Your task to perform on an android device: turn vacation reply on in the gmail app Image 0: 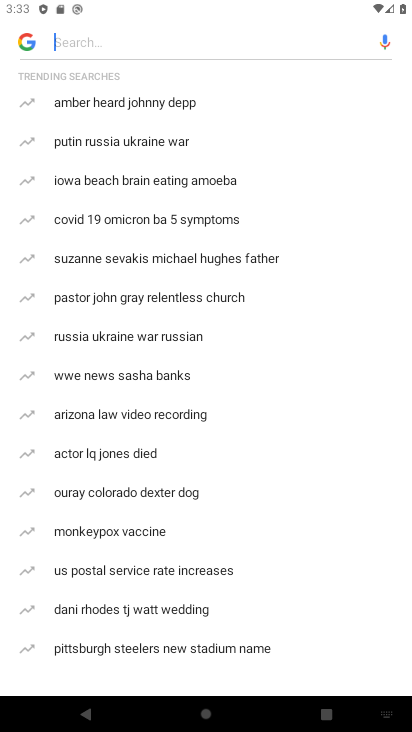
Step 0: press home button
Your task to perform on an android device: turn vacation reply on in the gmail app Image 1: 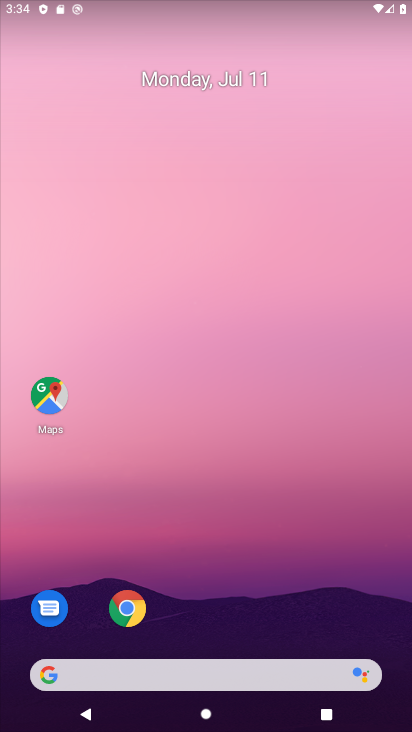
Step 1: drag from (252, 521) to (222, 0)
Your task to perform on an android device: turn vacation reply on in the gmail app Image 2: 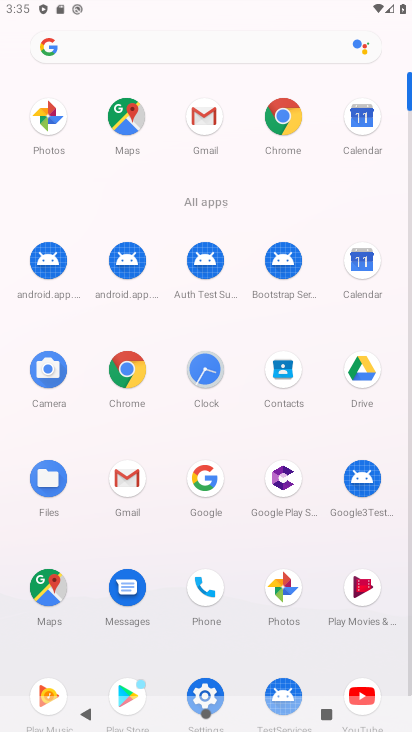
Step 2: click (134, 478)
Your task to perform on an android device: turn vacation reply on in the gmail app Image 3: 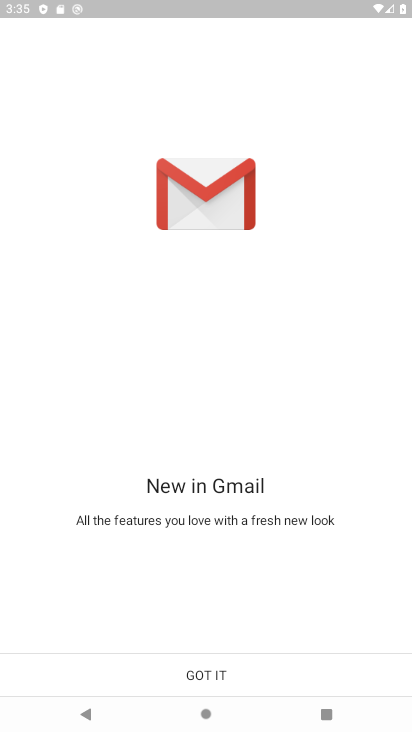
Step 3: click (250, 672)
Your task to perform on an android device: turn vacation reply on in the gmail app Image 4: 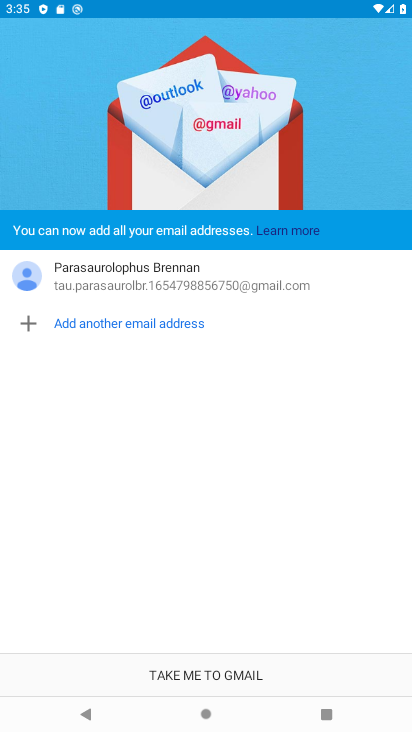
Step 4: click (250, 672)
Your task to perform on an android device: turn vacation reply on in the gmail app Image 5: 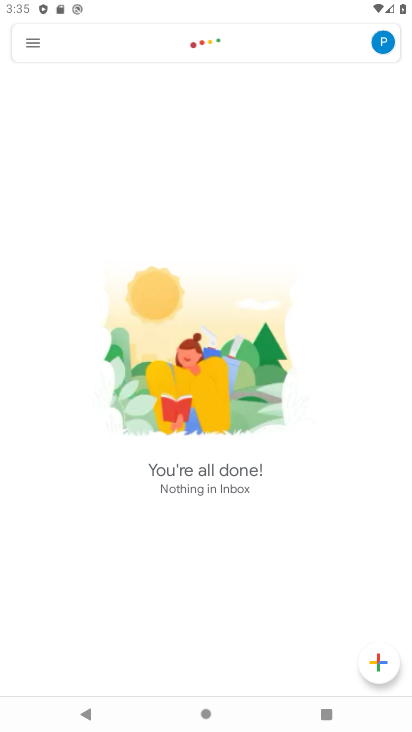
Step 5: click (37, 40)
Your task to perform on an android device: turn vacation reply on in the gmail app Image 6: 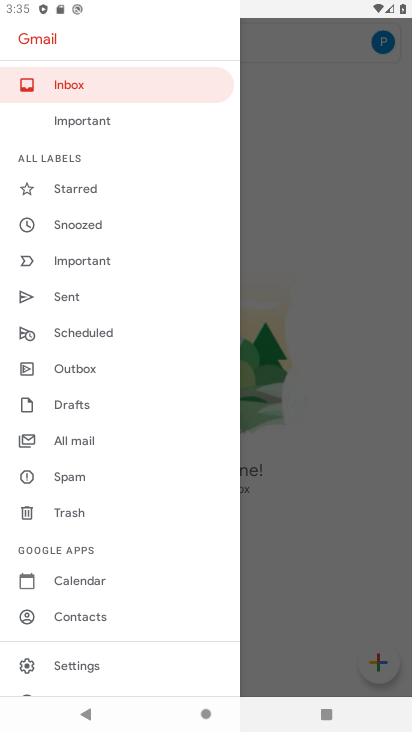
Step 6: drag from (181, 629) to (256, 137)
Your task to perform on an android device: turn vacation reply on in the gmail app Image 7: 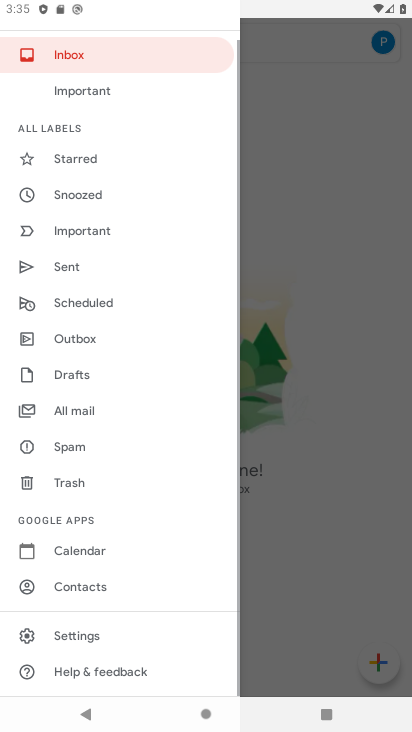
Step 7: click (101, 634)
Your task to perform on an android device: turn vacation reply on in the gmail app Image 8: 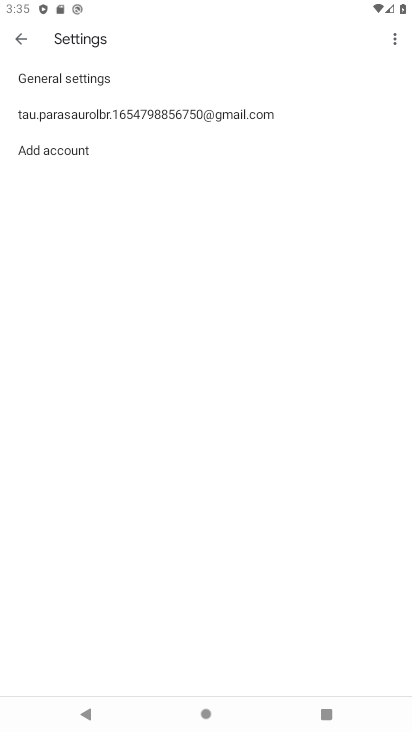
Step 8: click (117, 117)
Your task to perform on an android device: turn vacation reply on in the gmail app Image 9: 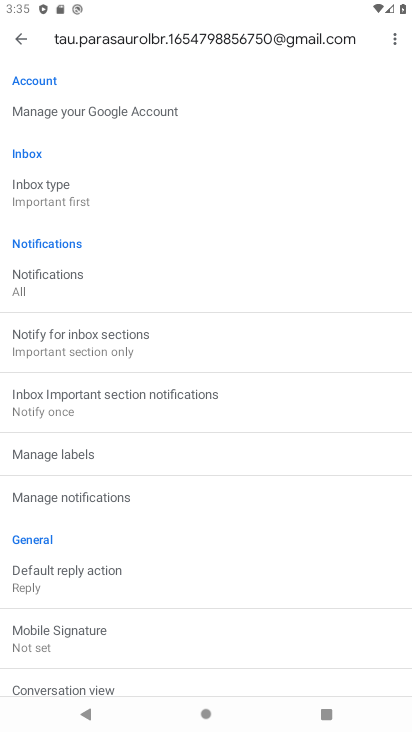
Step 9: drag from (273, 585) to (371, 10)
Your task to perform on an android device: turn vacation reply on in the gmail app Image 10: 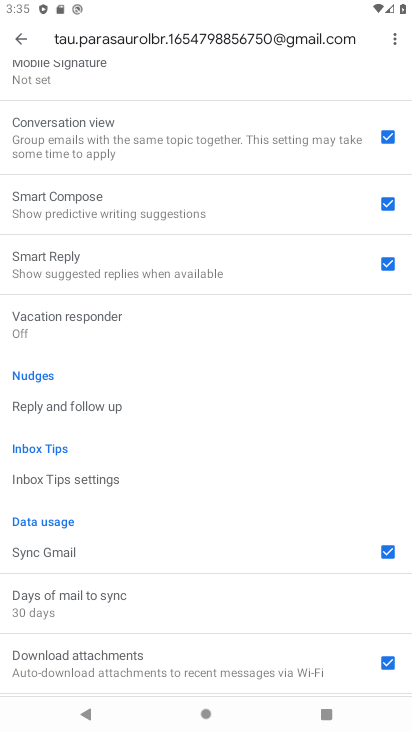
Step 10: drag from (270, 598) to (313, 22)
Your task to perform on an android device: turn vacation reply on in the gmail app Image 11: 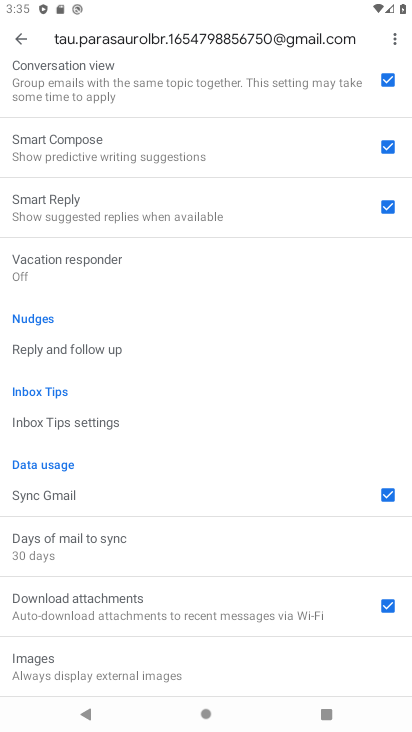
Step 11: click (78, 264)
Your task to perform on an android device: turn vacation reply on in the gmail app Image 12: 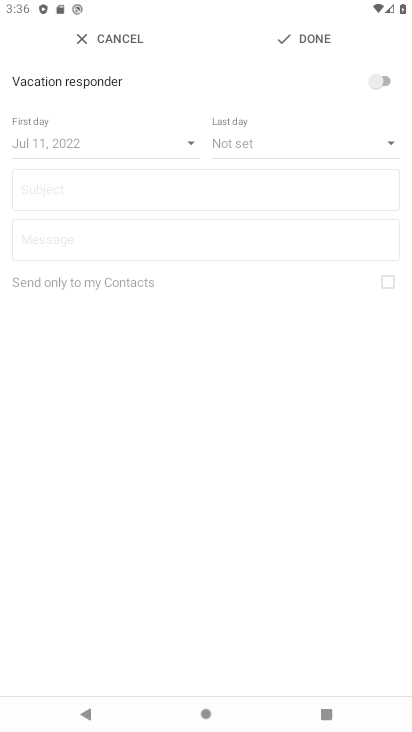
Step 12: click (377, 80)
Your task to perform on an android device: turn vacation reply on in the gmail app Image 13: 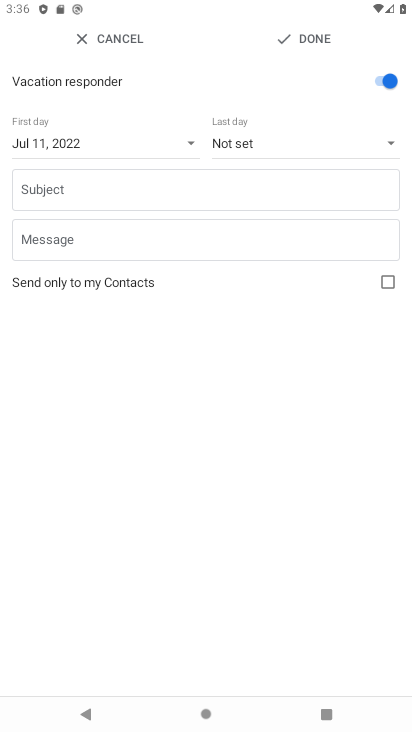
Step 13: click (310, 30)
Your task to perform on an android device: turn vacation reply on in the gmail app Image 14: 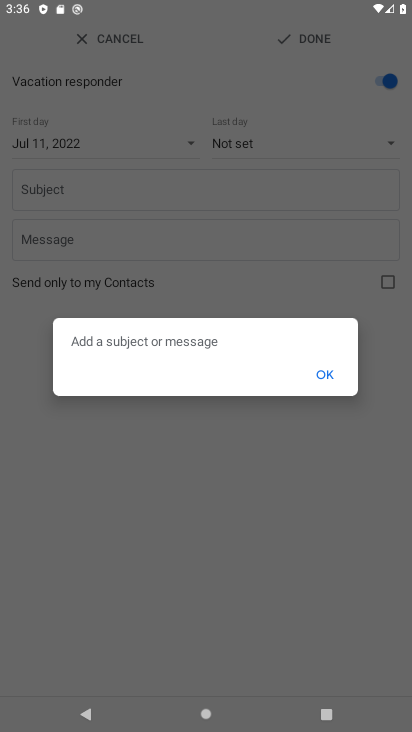
Step 14: click (331, 369)
Your task to perform on an android device: turn vacation reply on in the gmail app Image 15: 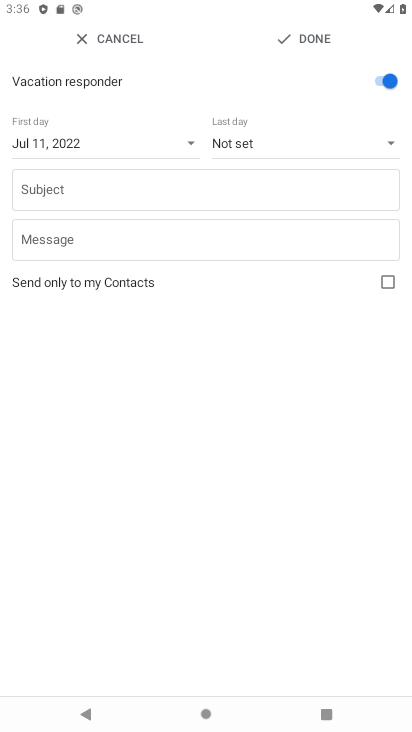
Step 15: click (197, 191)
Your task to perform on an android device: turn vacation reply on in the gmail app Image 16: 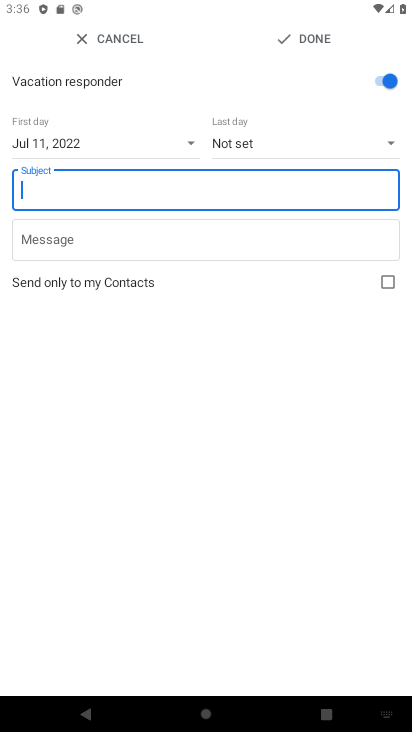
Step 16: type "hjk"
Your task to perform on an android device: turn vacation reply on in the gmail app Image 17: 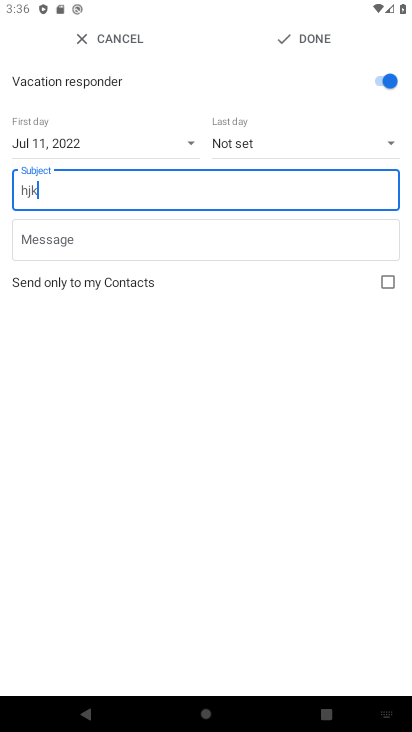
Step 17: click (309, 35)
Your task to perform on an android device: turn vacation reply on in the gmail app Image 18: 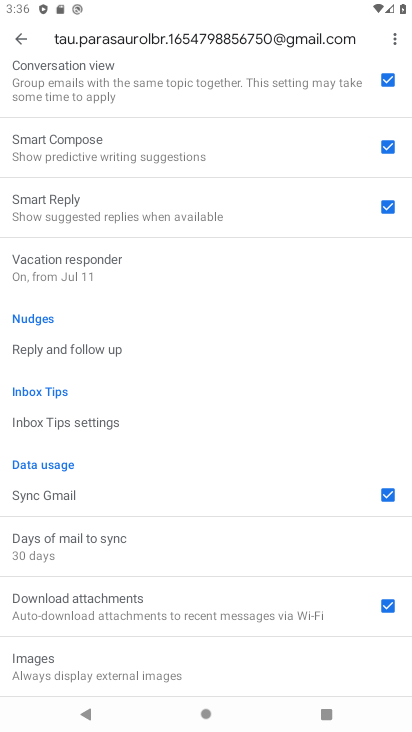
Step 18: task complete